Your task to perform on an android device: open app "Truecaller" (install if not already installed), go to login, and select forgot password Image 0: 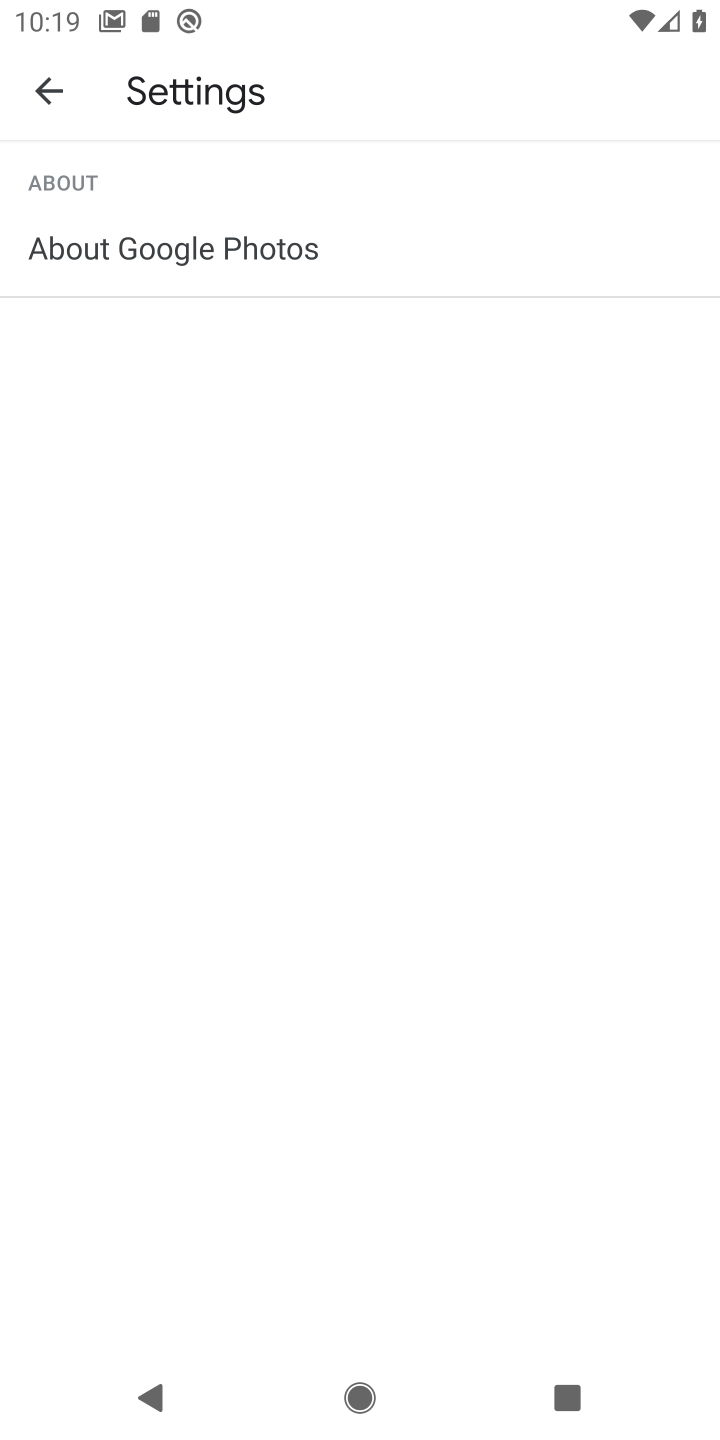
Step 0: drag from (367, 1022) to (353, 568)
Your task to perform on an android device: open app "Truecaller" (install if not already installed), go to login, and select forgot password Image 1: 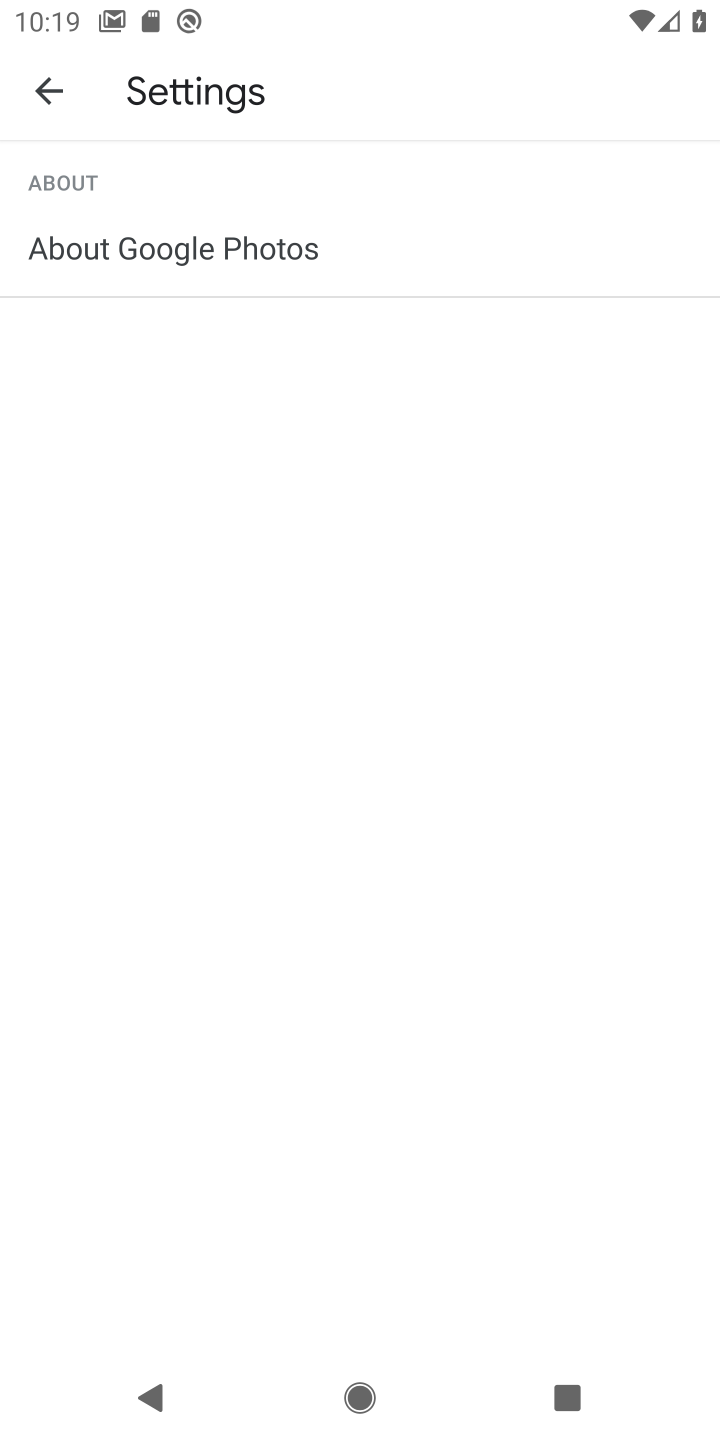
Step 1: press home button
Your task to perform on an android device: open app "Truecaller" (install if not already installed), go to login, and select forgot password Image 2: 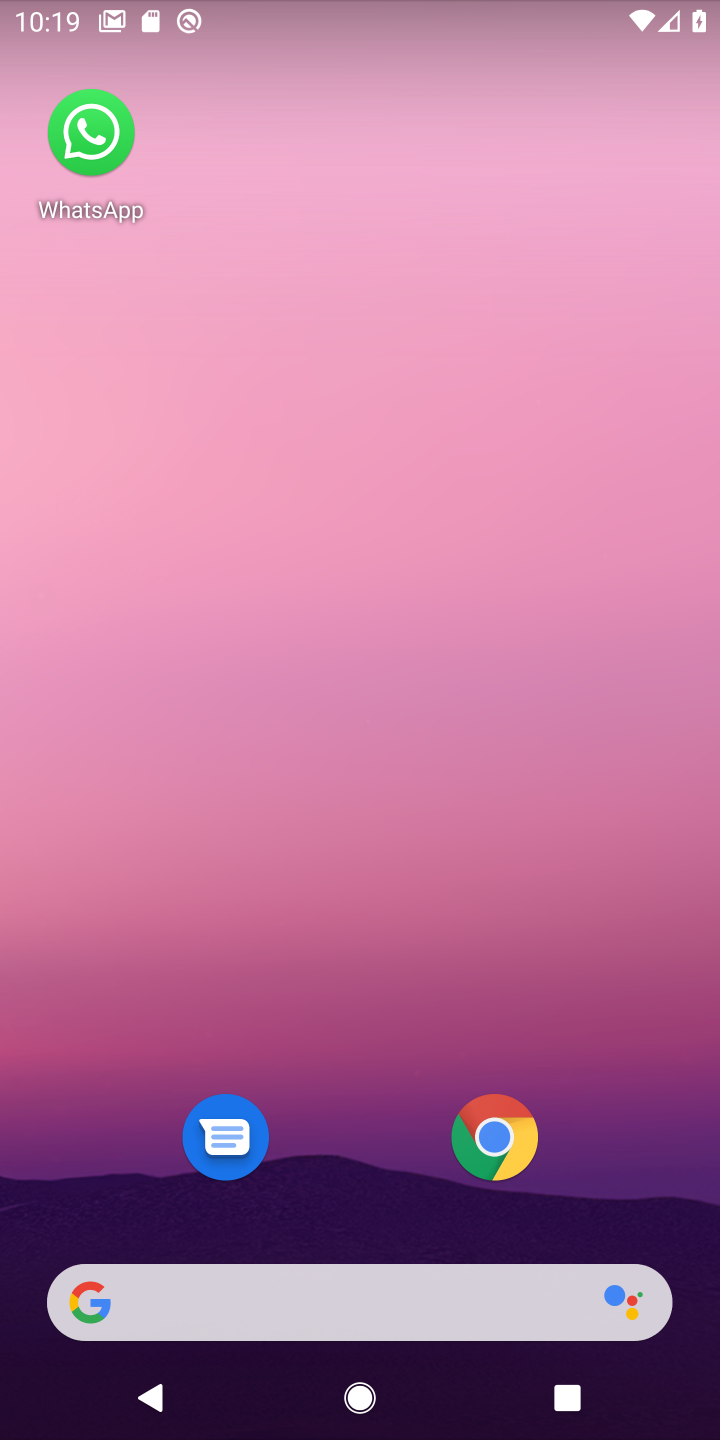
Step 2: drag from (237, 763) to (259, 509)
Your task to perform on an android device: open app "Truecaller" (install if not already installed), go to login, and select forgot password Image 3: 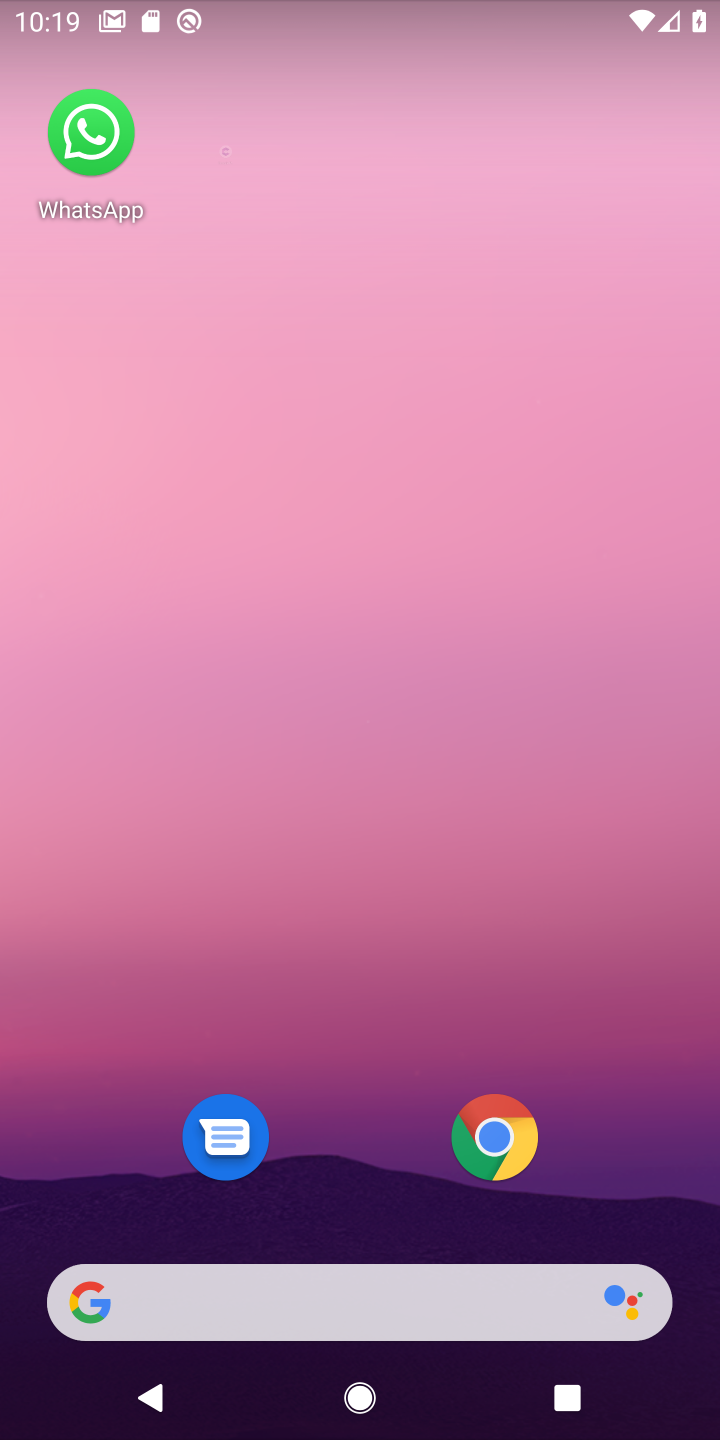
Step 3: drag from (364, 833) to (378, 454)
Your task to perform on an android device: open app "Truecaller" (install if not already installed), go to login, and select forgot password Image 4: 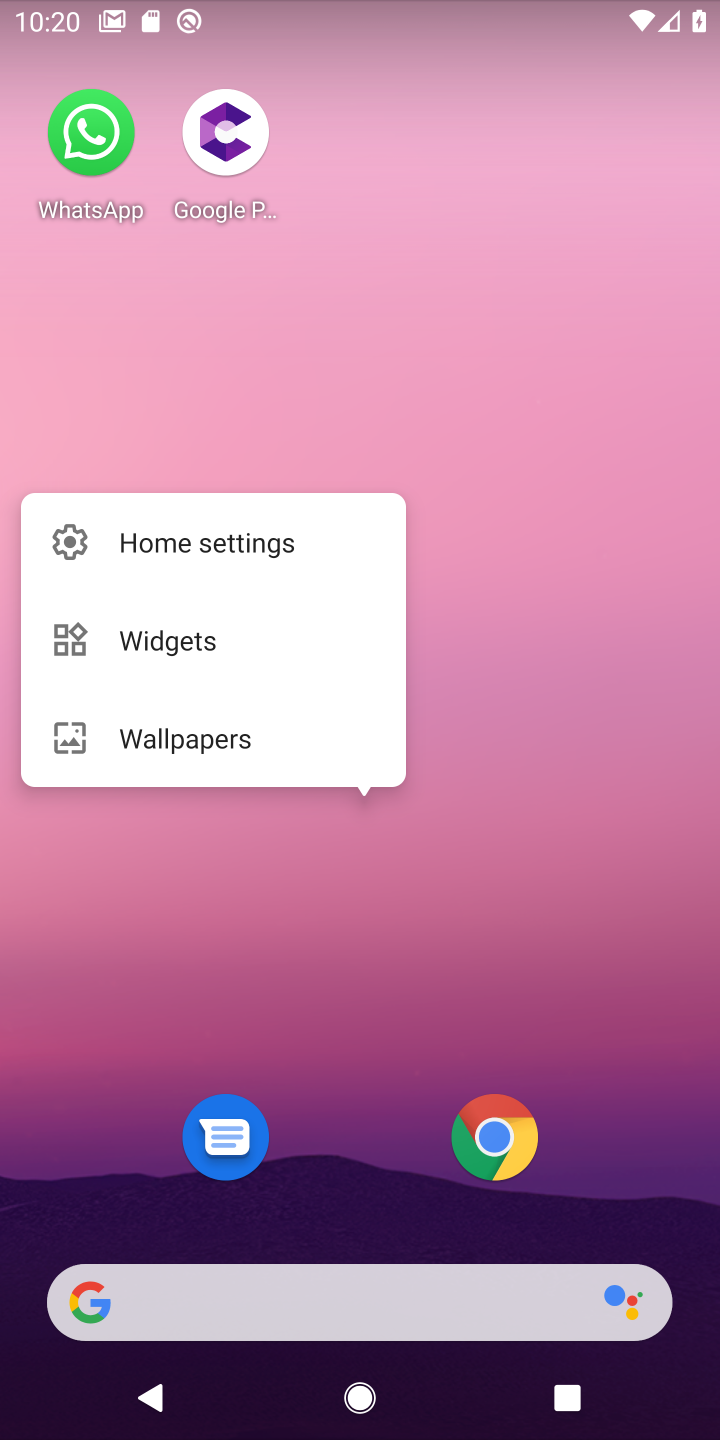
Step 4: click (493, 969)
Your task to perform on an android device: open app "Truecaller" (install if not already installed), go to login, and select forgot password Image 5: 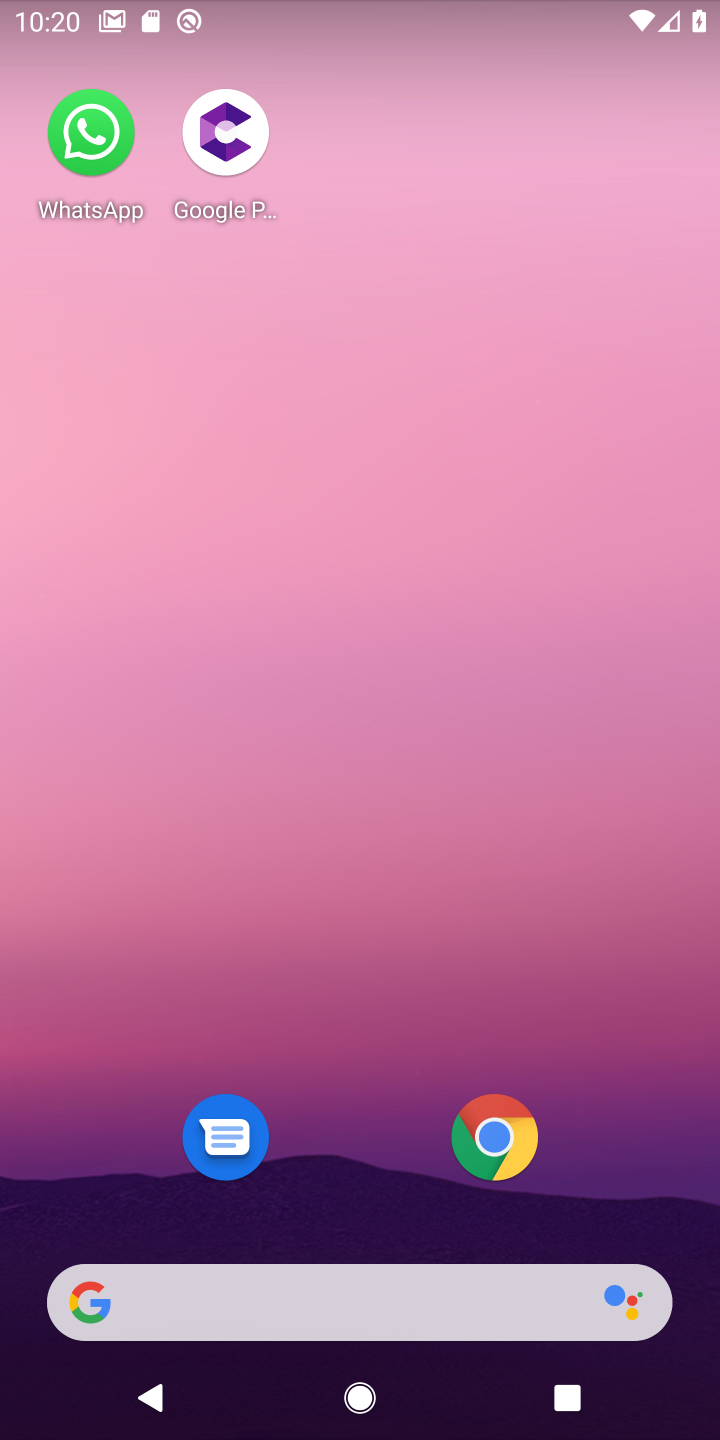
Step 5: drag from (397, 1193) to (413, 514)
Your task to perform on an android device: open app "Truecaller" (install if not already installed), go to login, and select forgot password Image 6: 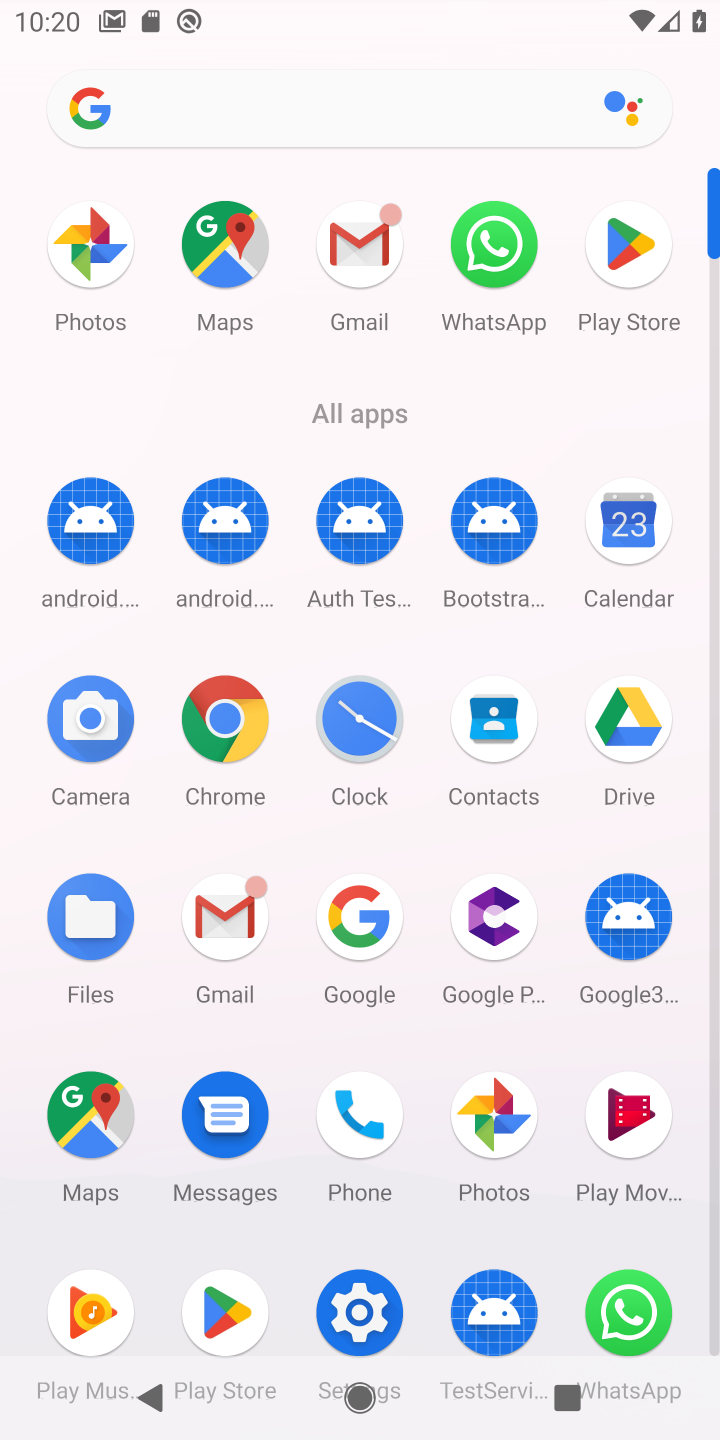
Step 6: click (637, 263)
Your task to perform on an android device: open app "Truecaller" (install if not already installed), go to login, and select forgot password Image 7: 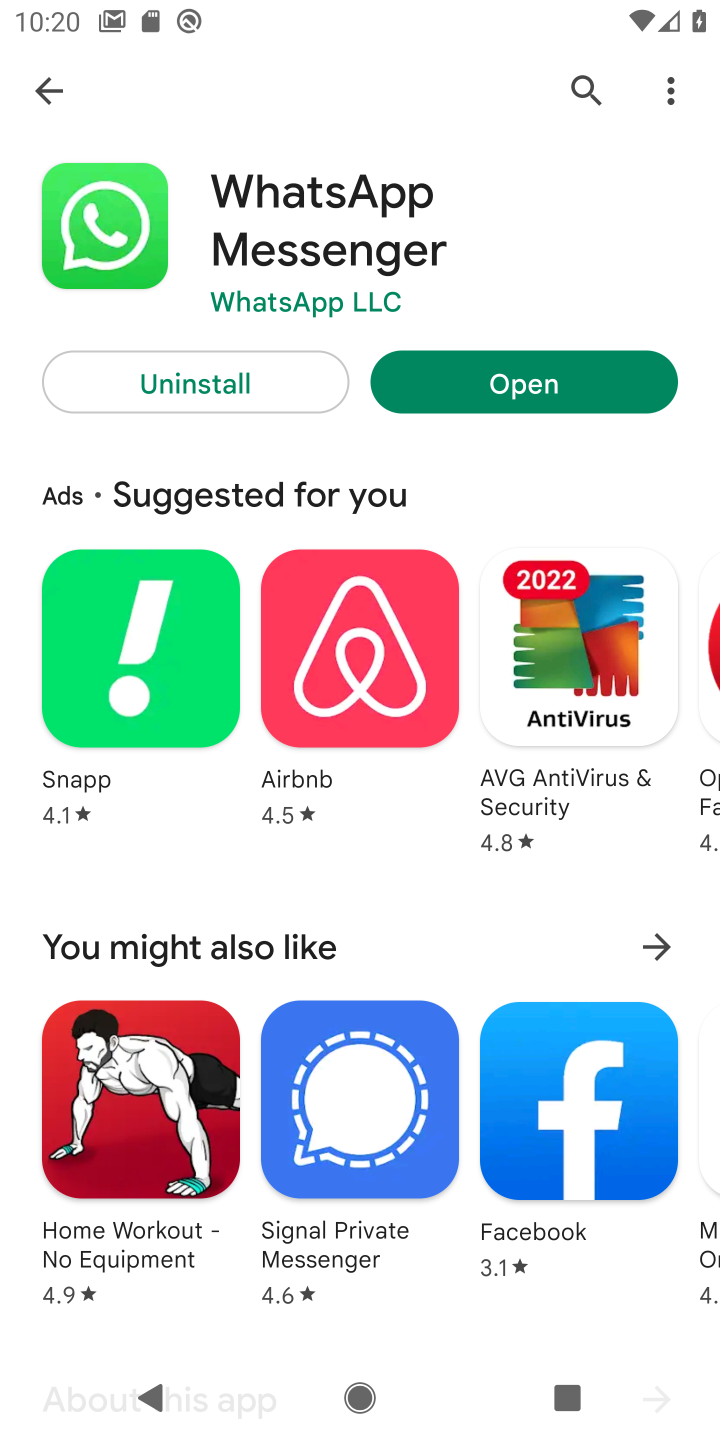
Step 7: click (42, 75)
Your task to perform on an android device: open app "Truecaller" (install if not already installed), go to login, and select forgot password Image 8: 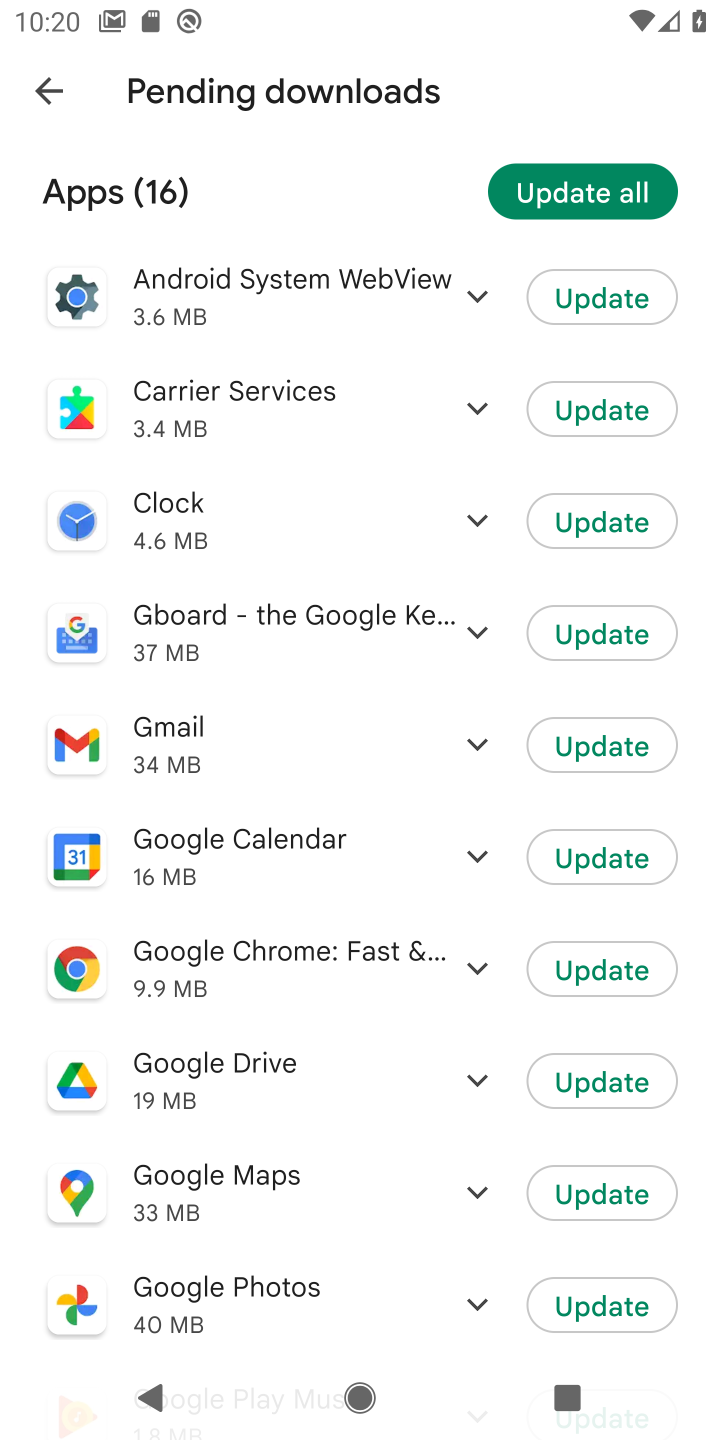
Step 8: click (27, 82)
Your task to perform on an android device: open app "Truecaller" (install if not already installed), go to login, and select forgot password Image 9: 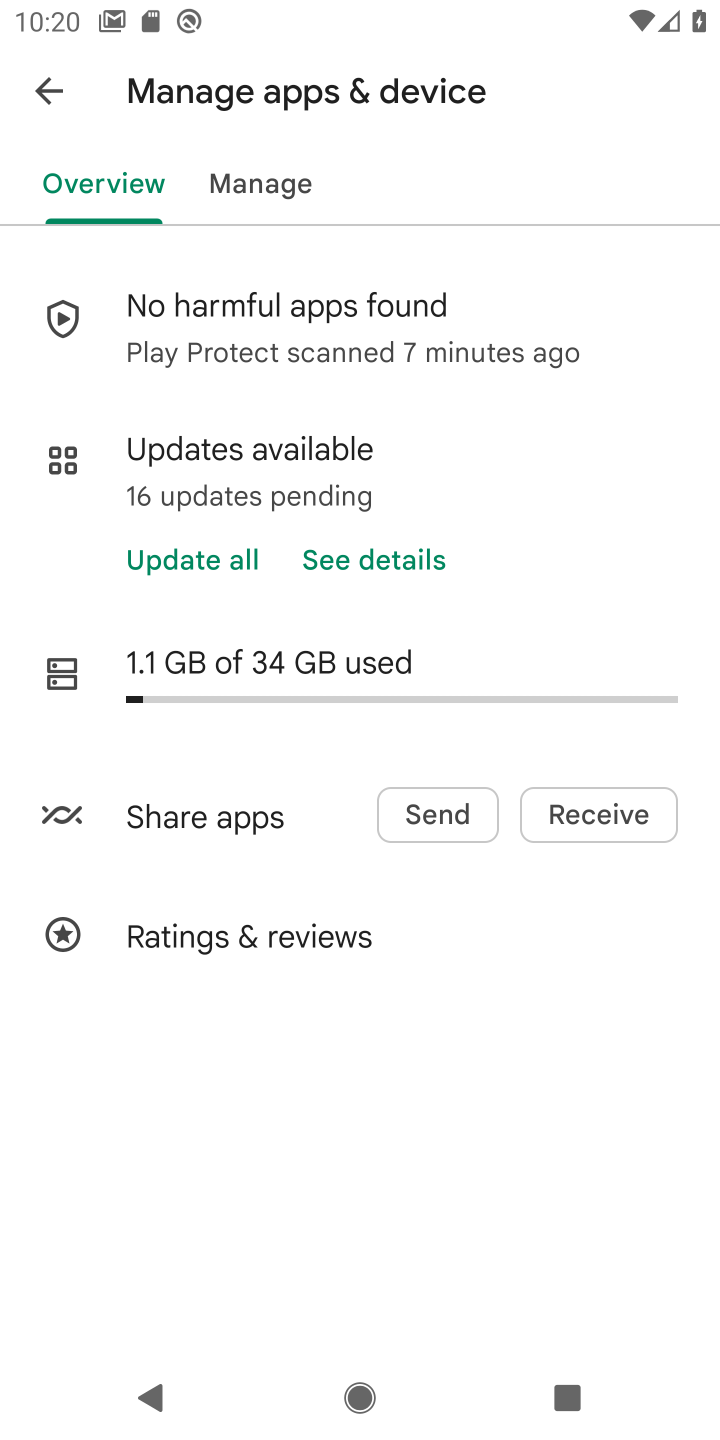
Step 9: click (47, 80)
Your task to perform on an android device: open app "Truecaller" (install if not already installed), go to login, and select forgot password Image 10: 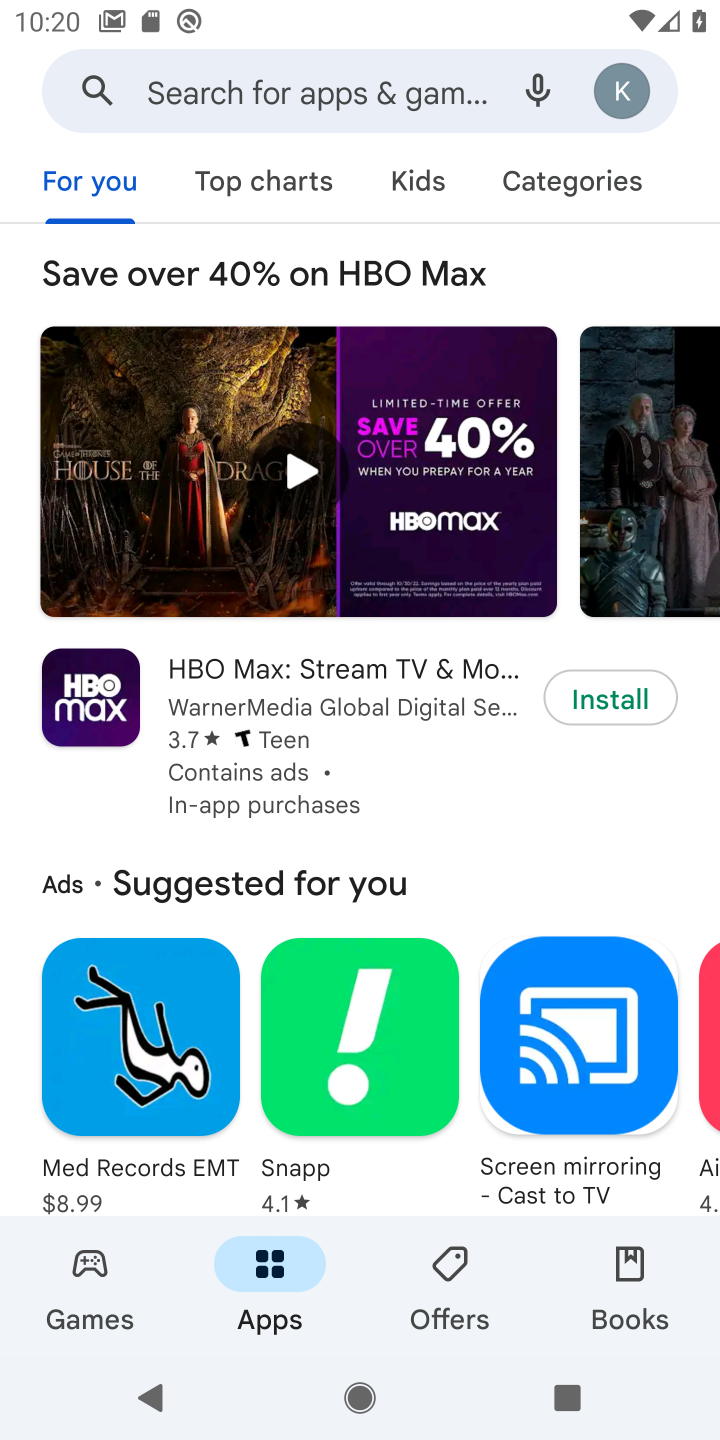
Step 10: click (340, 88)
Your task to perform on an android device: open app "Truecaller" (install if not already installed), go to login, and select forgot password Image 11: 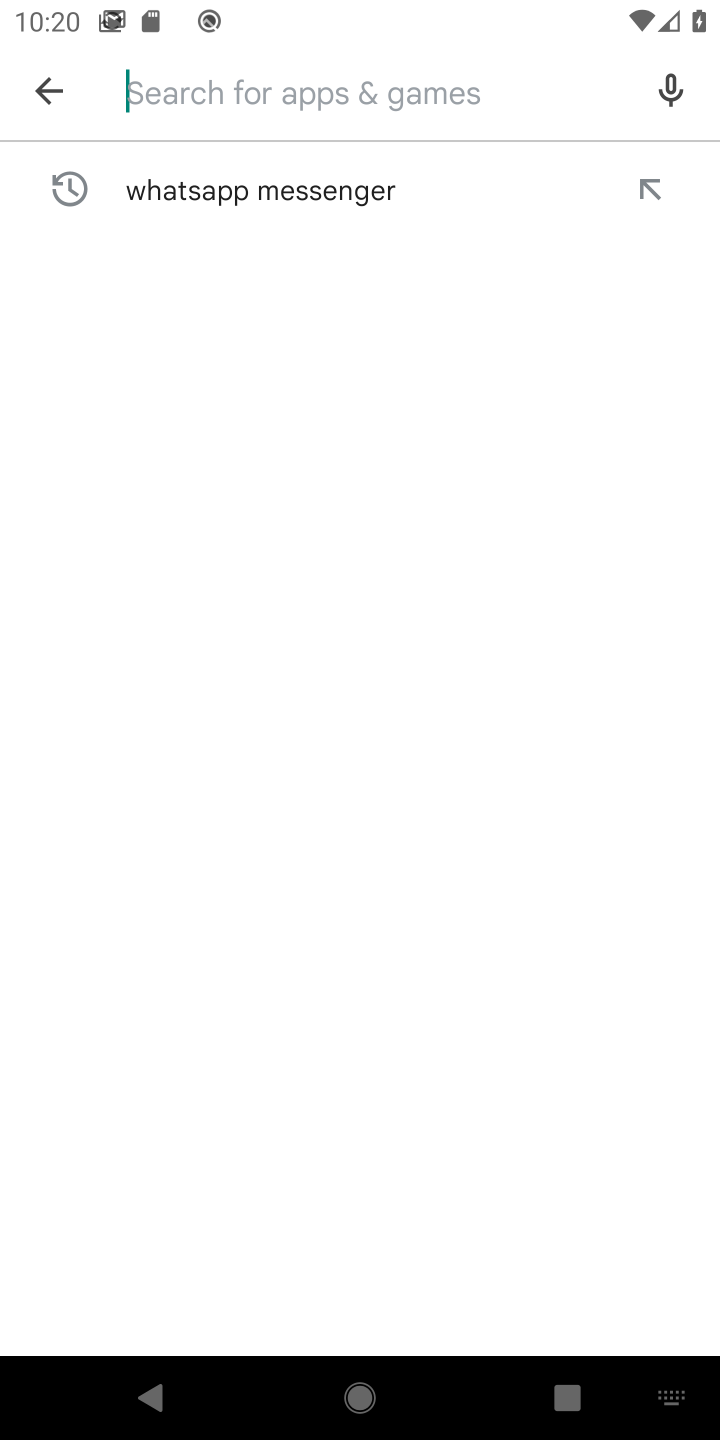
Step 11: type "truecaller"
Your task to perform on an android device: open app "Truecaller" (install if not already installed), go to login, and select forgot password Image 12: 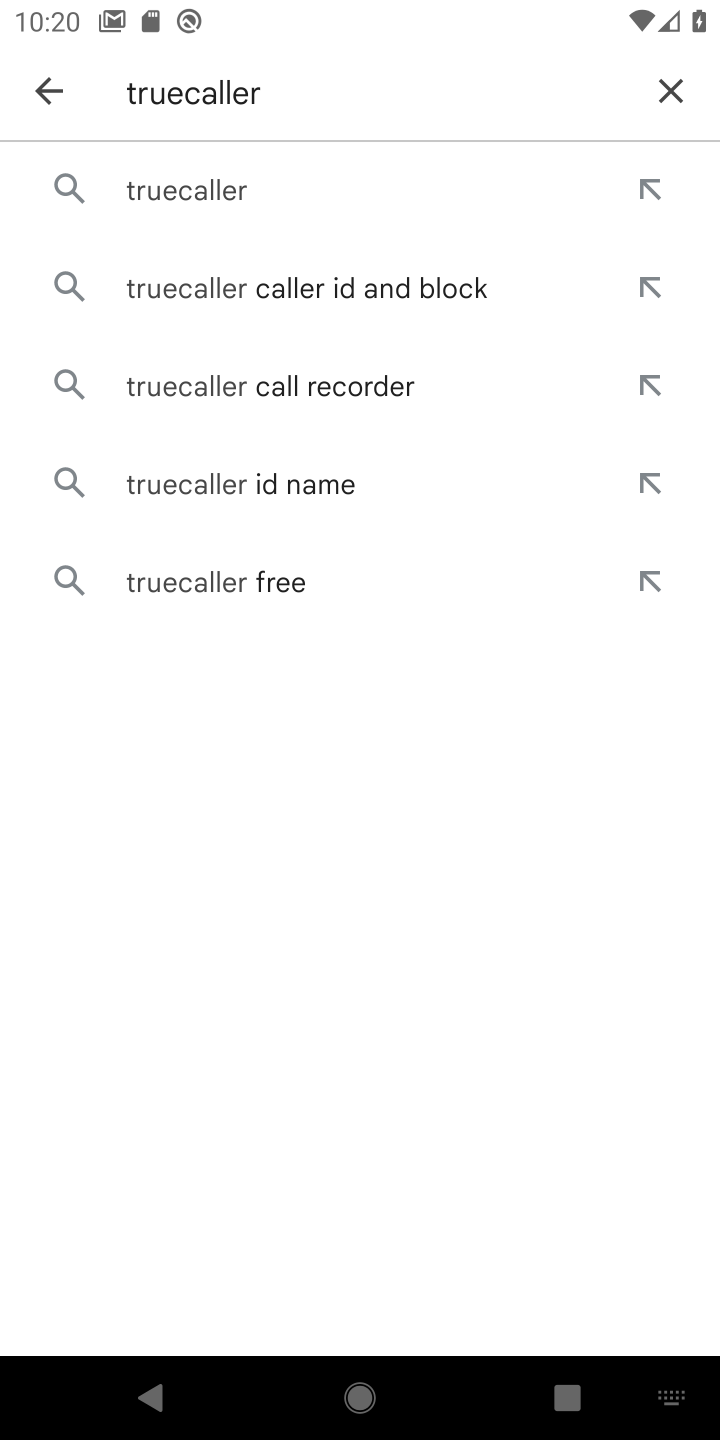
Step 12: click (212, 175)
Your task to perform on an android device: open app "Truecaller" (install if not already installed), go to login, and select forgot password Image 13: 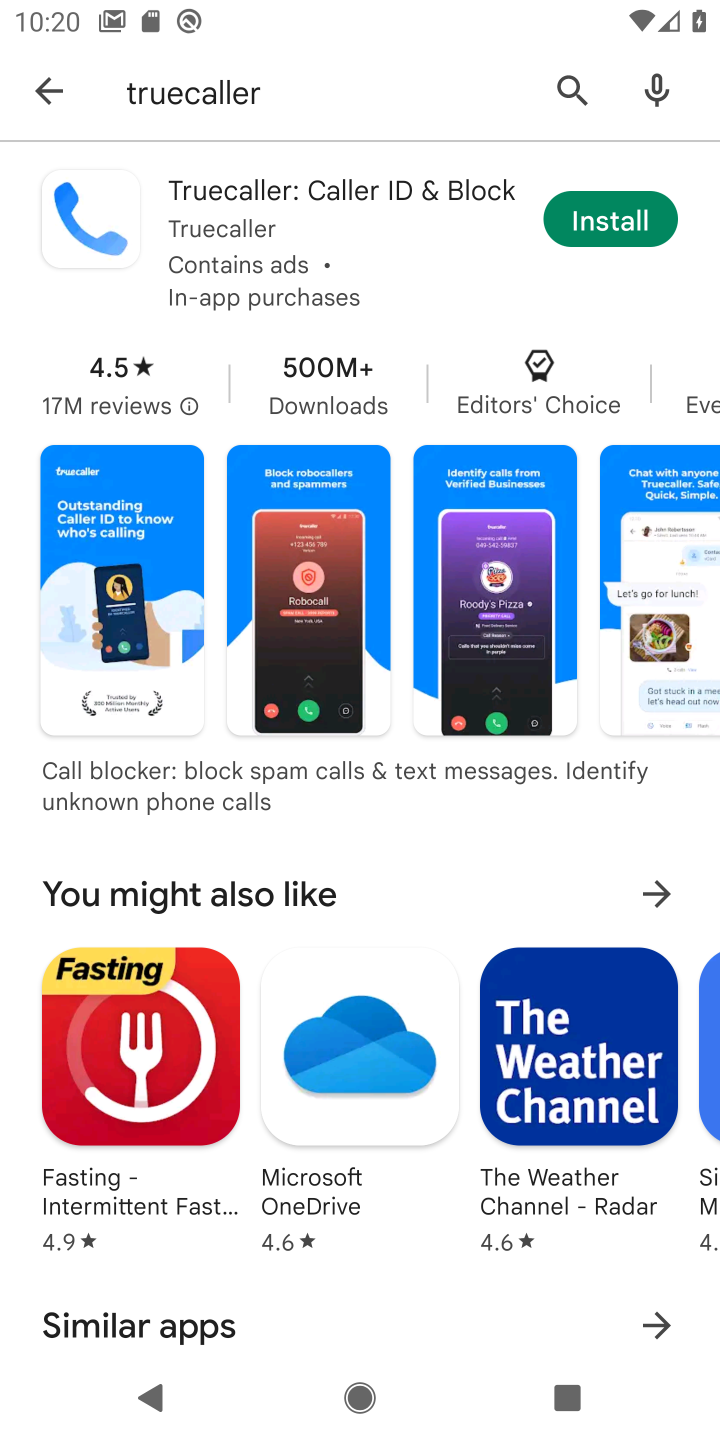
Step 13: click (631, 228)
Your task to perform on an android device: open app "Truecaller" (install if not already installed), go to login, and select forgot password Image 14: 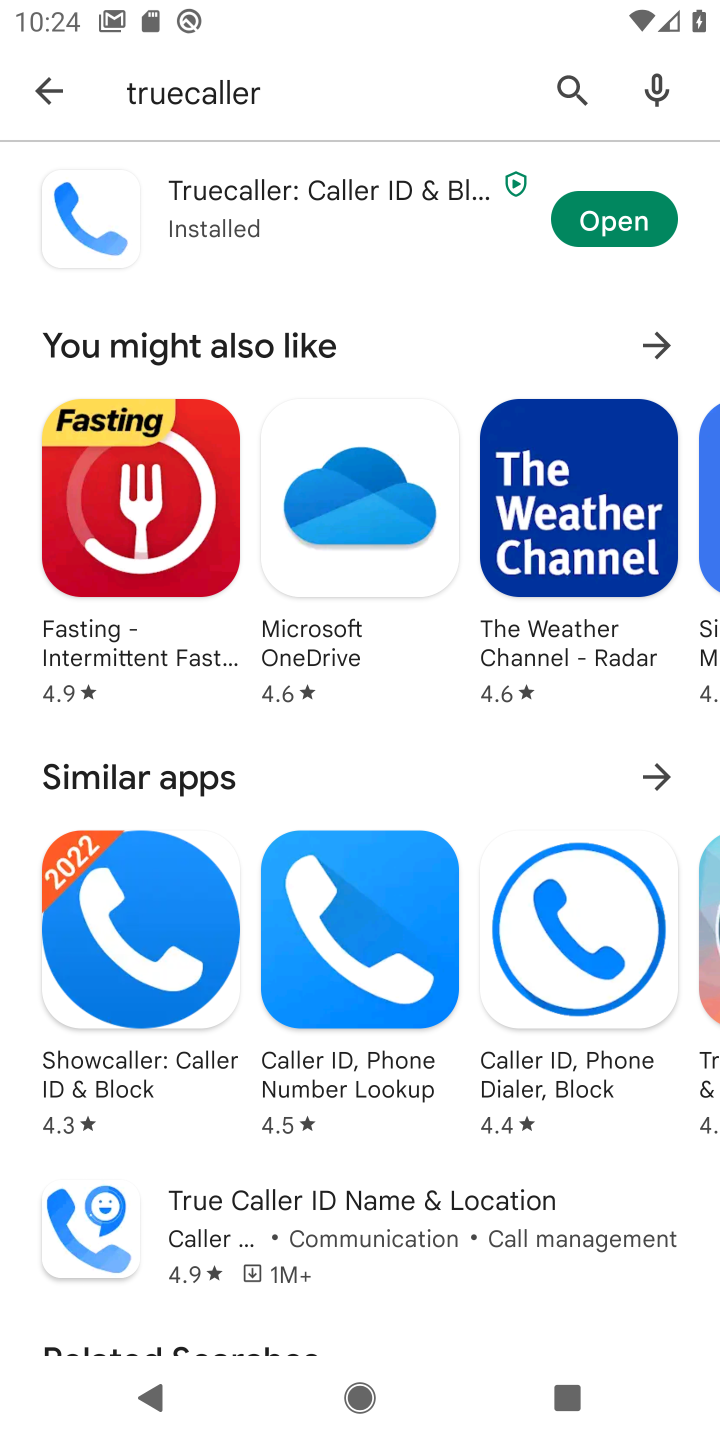
Step 14: click (630, 222)
Your task to perform on an android device: open app "Truecaller" (install if not already installed), go to login, and select forgot password Image 15: 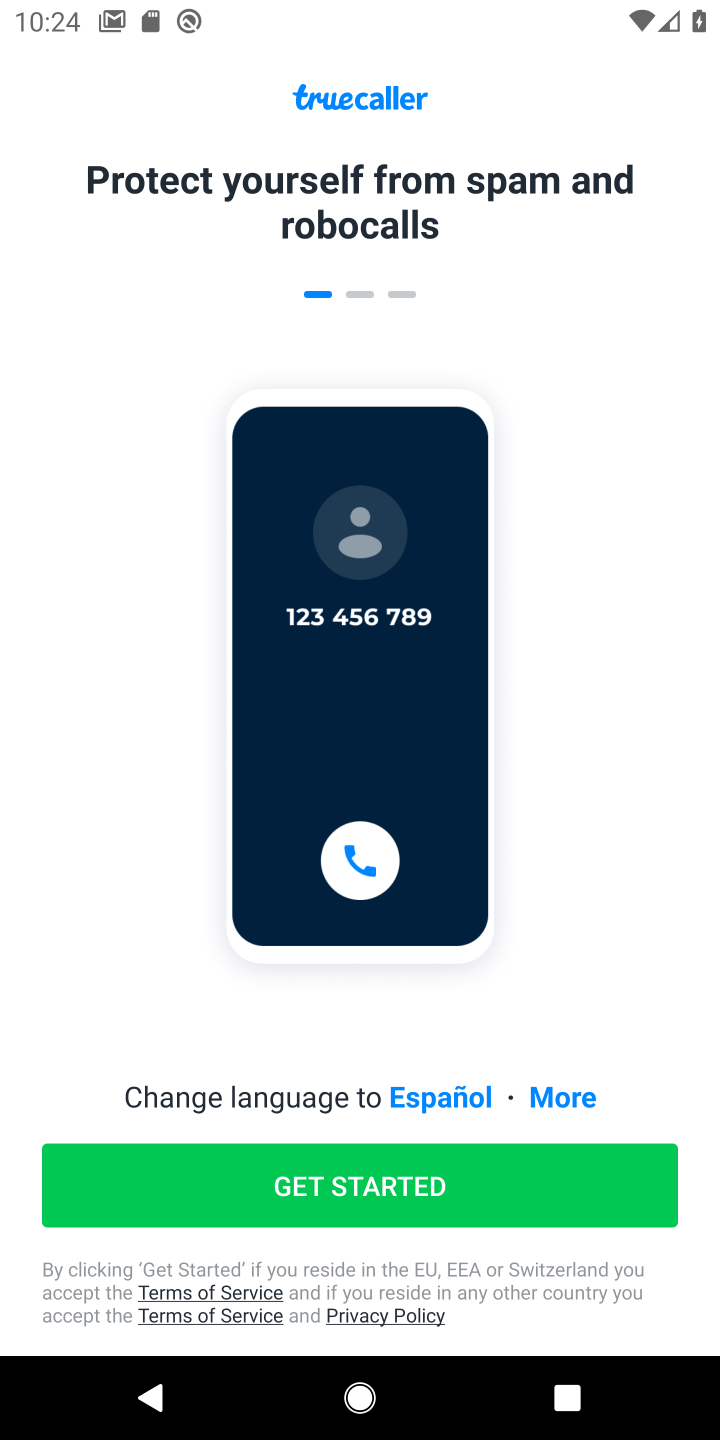
Step 15: click (398, 1183)
Your task to perform on an android device: open app "Truecaller" (install if not already installed), go to login, and select forgot password Image 16: 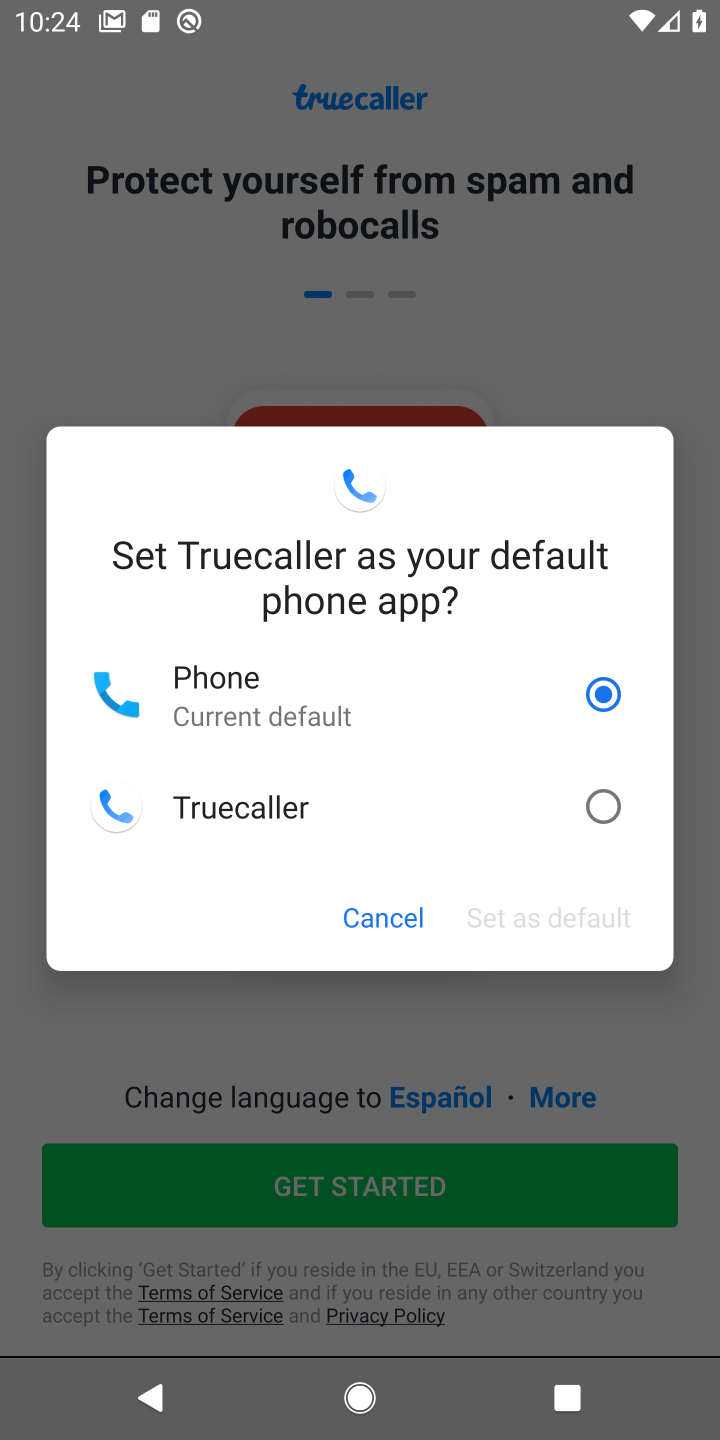
Step 16: click (319, 783)
Your task to perform on an android device: open app "Truecaller" (install if not already installed), go to login, and select forgot password Image 17: 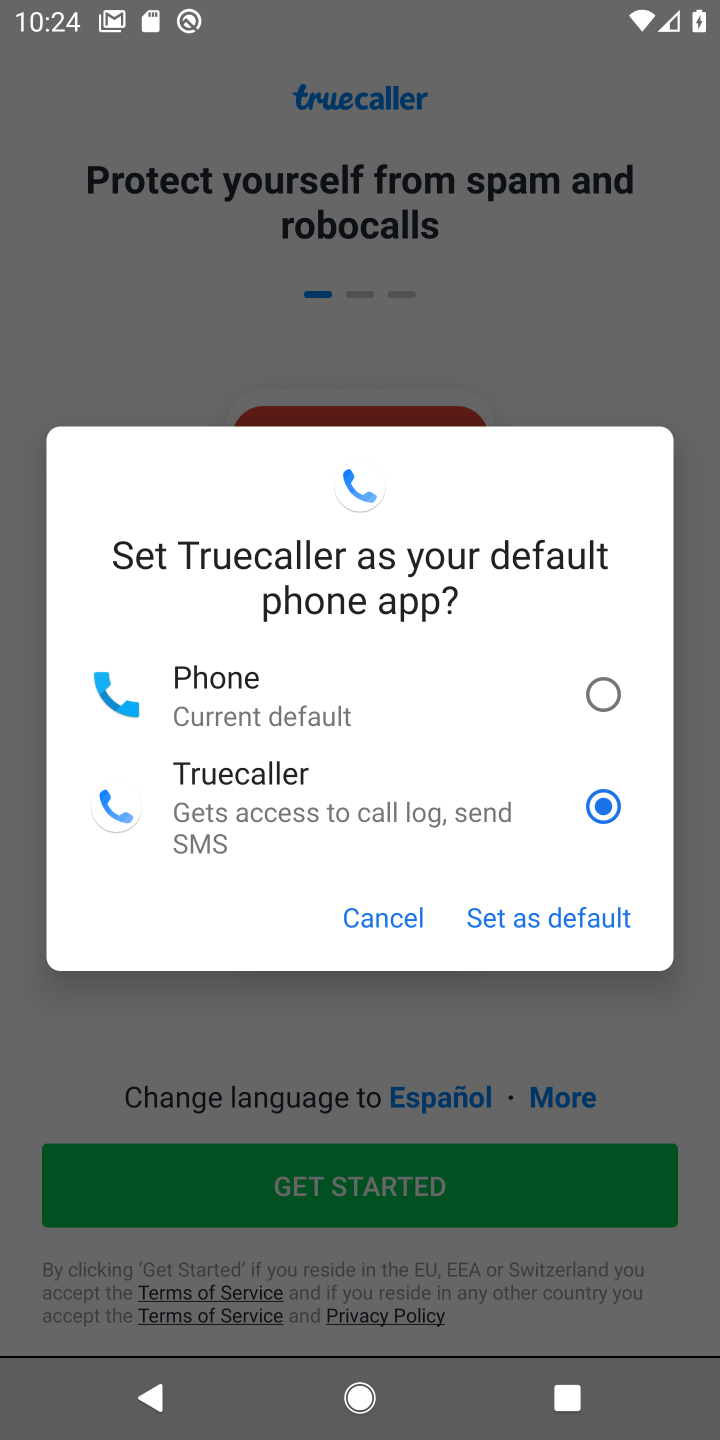
Step 17: click (566, 923)
Your task to perform on an android device: open app "Truecaller" (install if not already installed), go to login, and select forgot password Image 18: 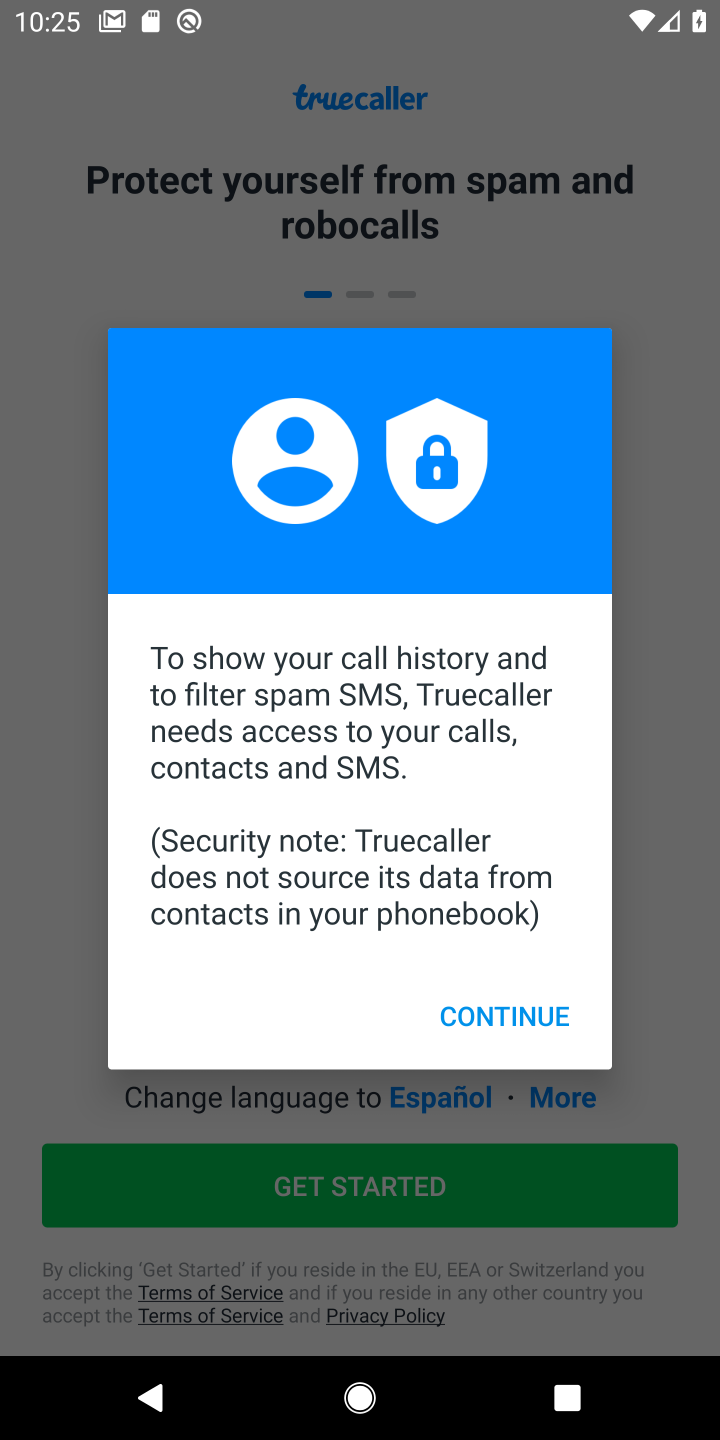
Step 18: click (519, 993)
Your task to perform on an android device: open app "Truecaller" (install if not already installed), go to login, and select forgot password Image 19: 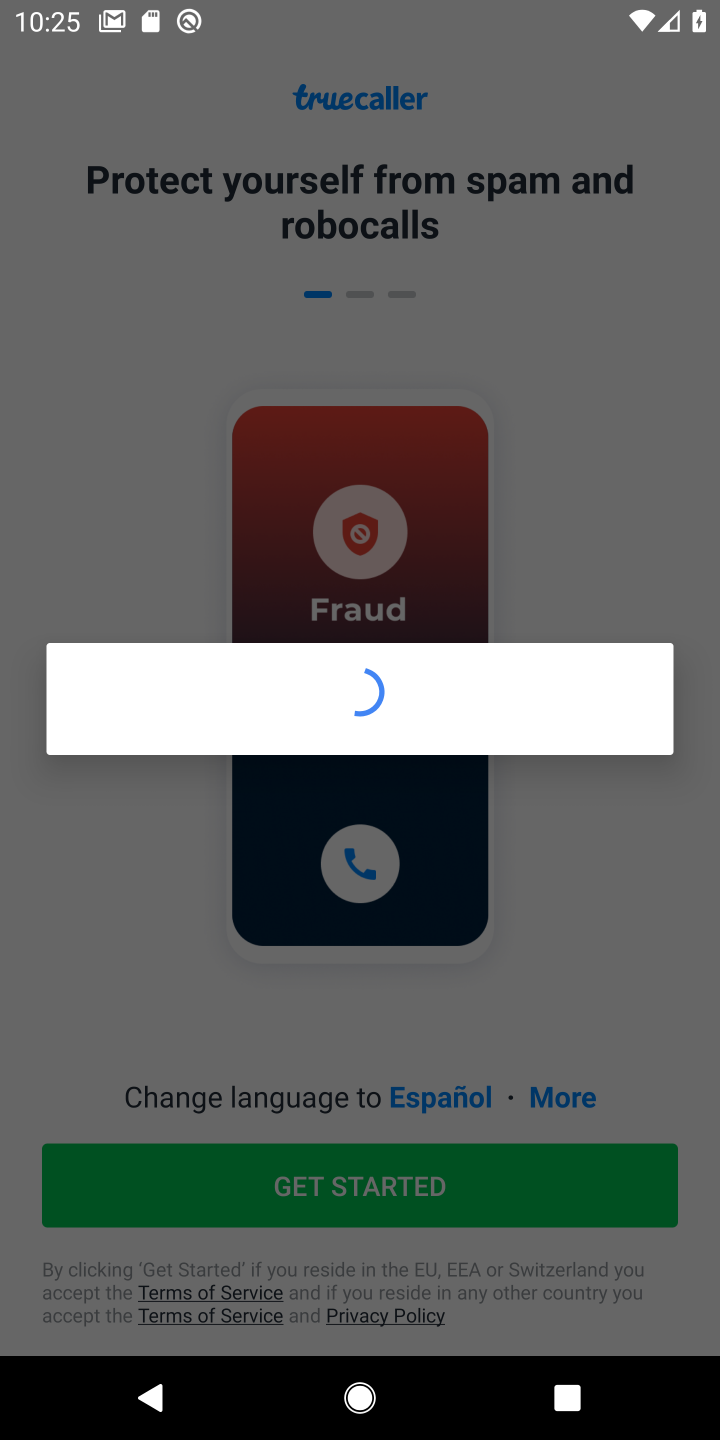
Step 19: click (450, 1166)
Your task to perform on an android device: open app "Truecaller" (install if not already installed), go to login, and select forgot password Image 20: 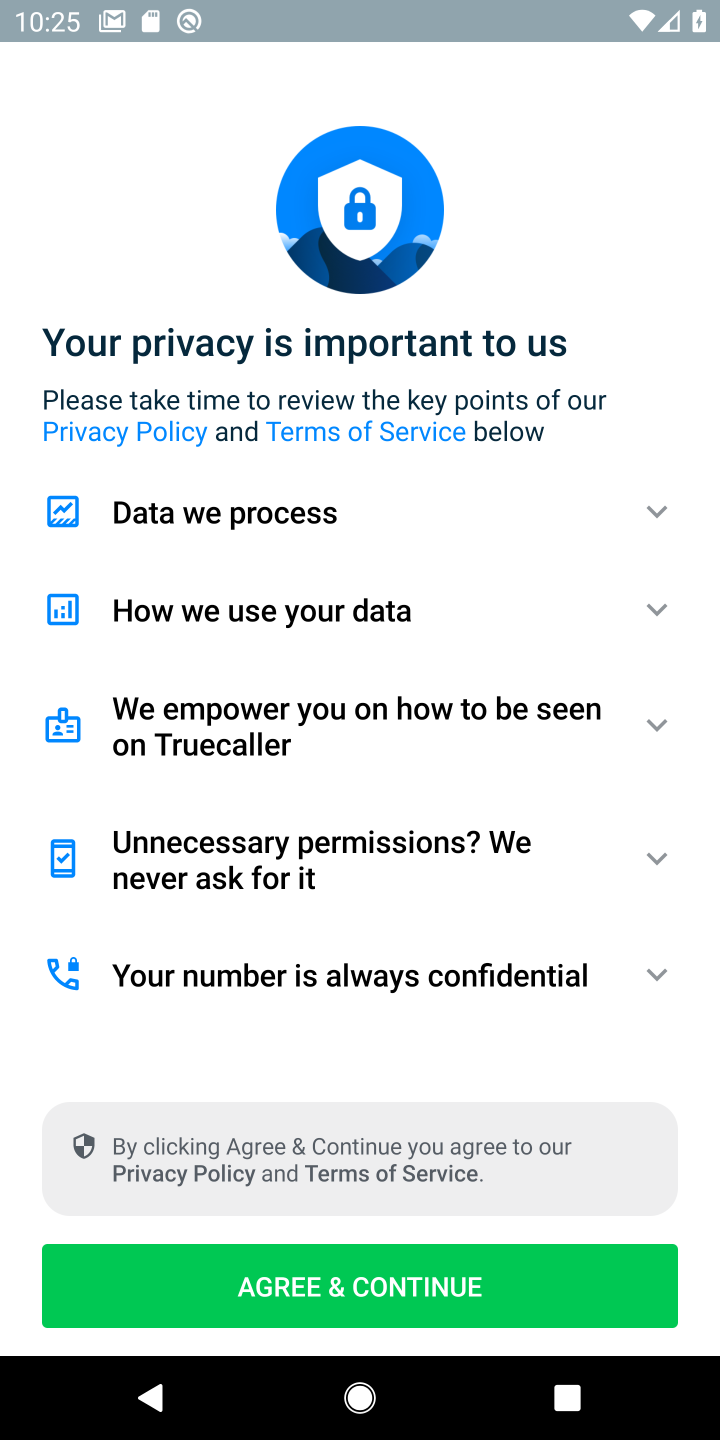
Step 20: click (431, 1312)
Your task to perform on an android device: open app "Truecaller" (install if not already installed), go to login, and select forgot password Image 21: 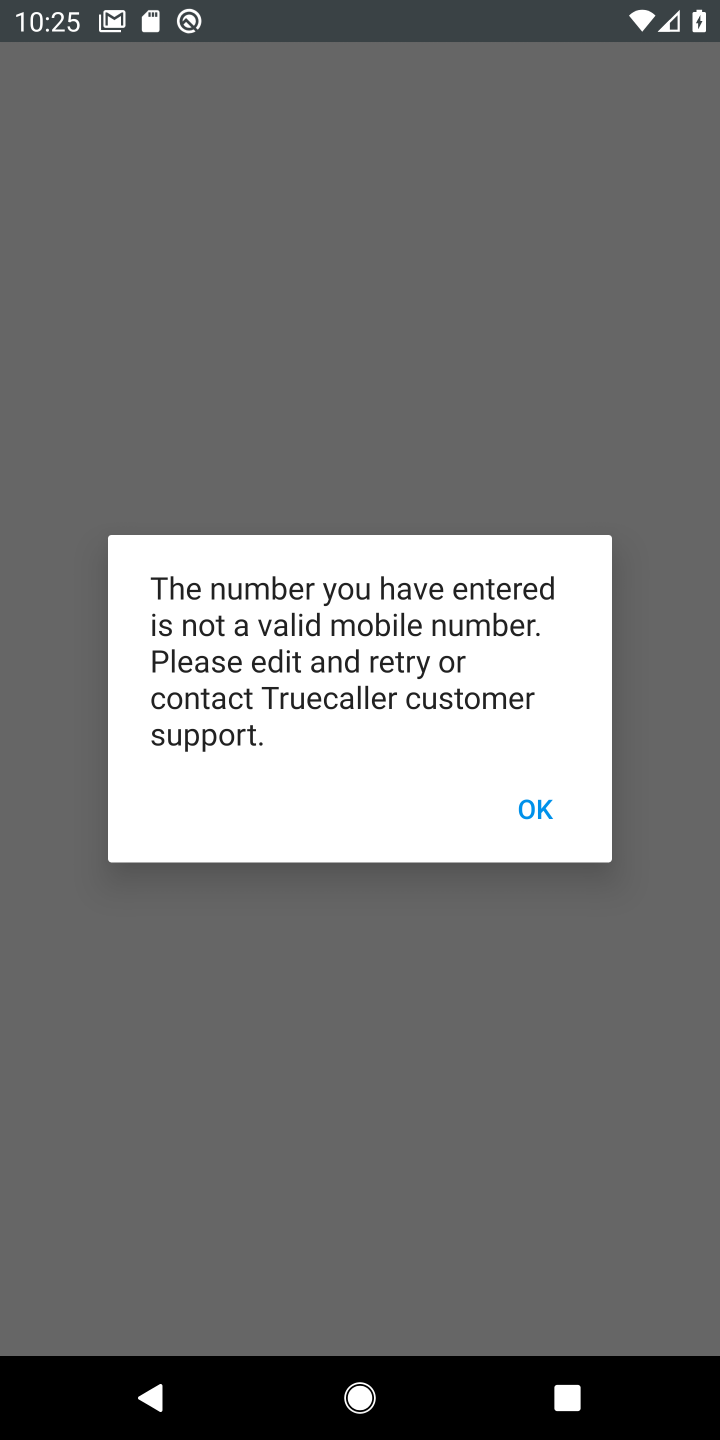
Step 21: click (551, 813)
Your task to perform on an android device: open app "Truecaller" (install if not already installed), go to login, and select forgot password Image 22: 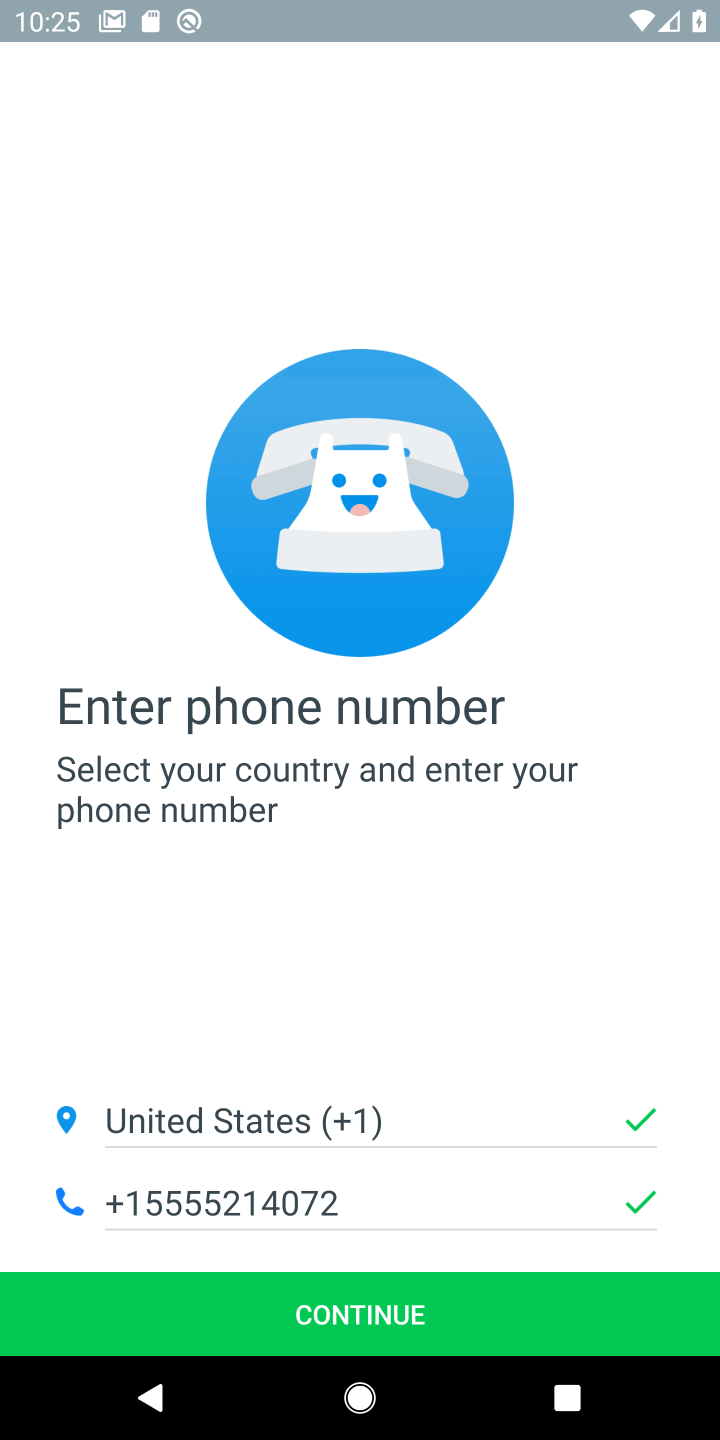
Step 22: click (445, 1310)
Your task to perform on an android device: open app "Truecaller" (install if not already installed), go to login, and select forgot password Image 23: 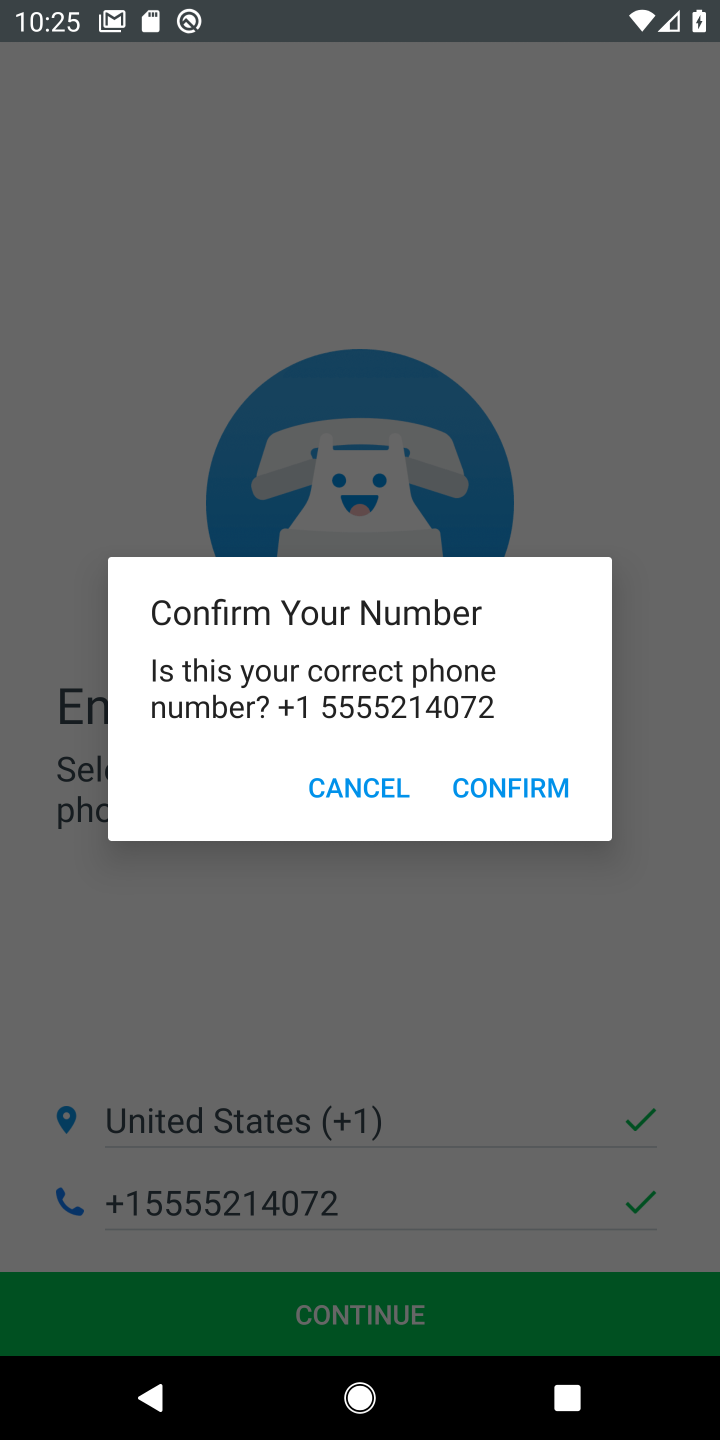
Step 23: task complete